Your task to perform on an android device: move an email to a new category in the gmail app Image 0: 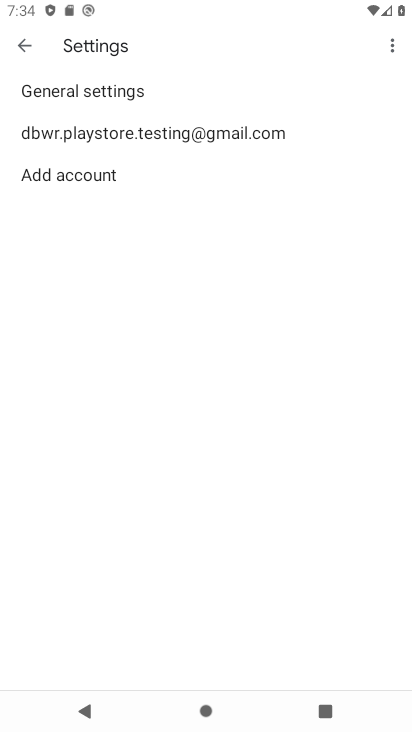
Step 0: press home button
Your task to perform on an android device: move an email to a new category in the gmail app Image 1: 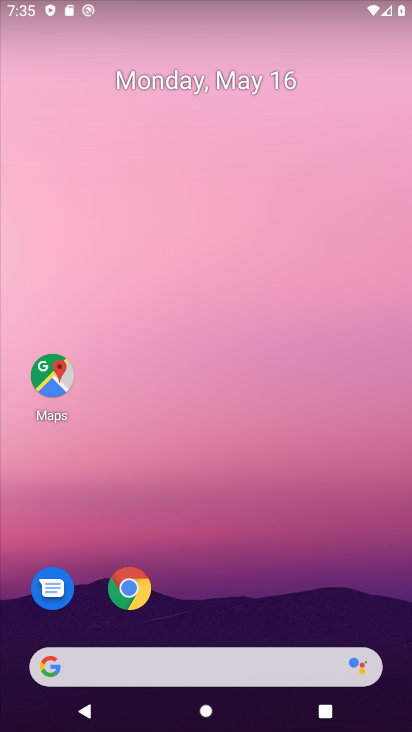
Step 1: drag from (336, 586) to (363, 155)
Your task to perform on an android device: move an email to a new category in the gmail app Image 2: 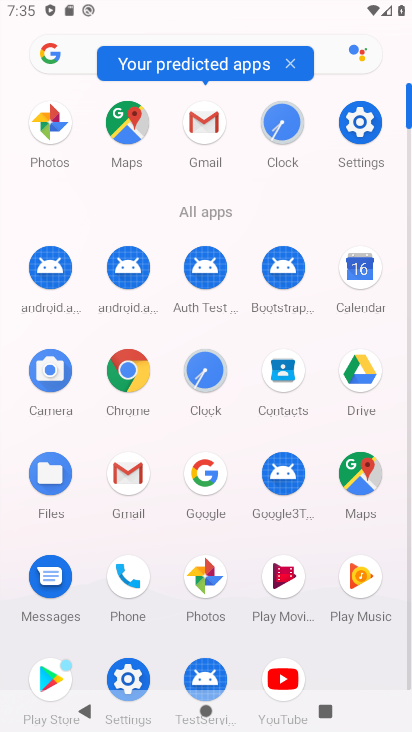
Step 2: click (131, 483)
Your task to perform on an android device: move an email to a new category in the gmail app Image 3: 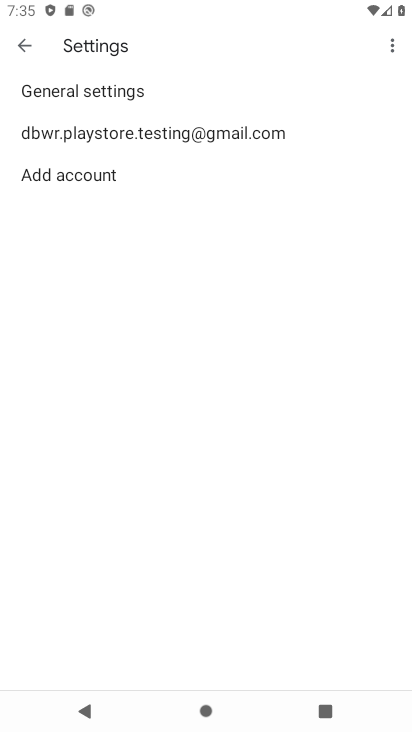
Step 3: click (27, 44)
Your task to perform on an android device: move an email to a new category in the gmail app Image 4: 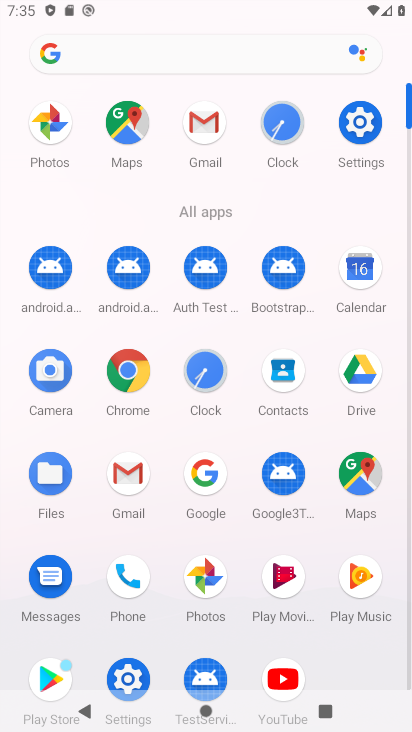
Step 4: click (137, 479)
Your task to perform on an android device: move an email to a new category in the gmail app Image 5: 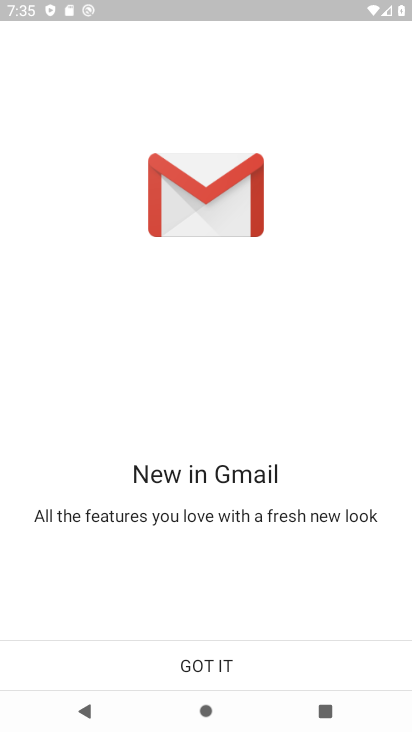
Step 5: click (228, 668)
Your task to perform on an android device: move an email to a new category in the gmail app Image 6: 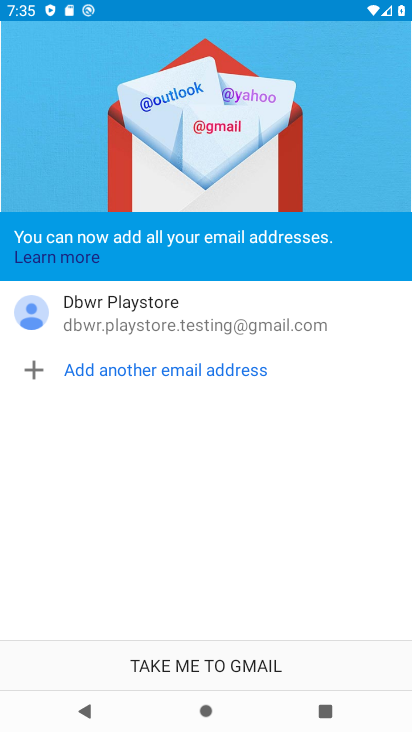
Step 6: click (228, 668)
Your task to perform on an android device: move an email to a new category in the gmail app Image 7: 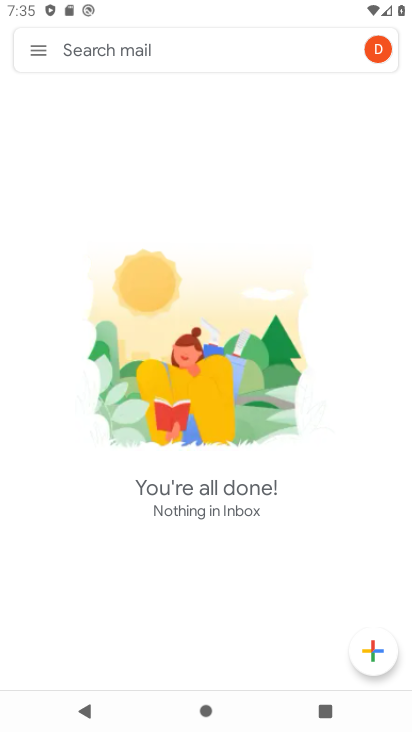
Step 7: click (32, 38)
Your task to perform on an android device: move an email to a new category in the gmail app Image 8: 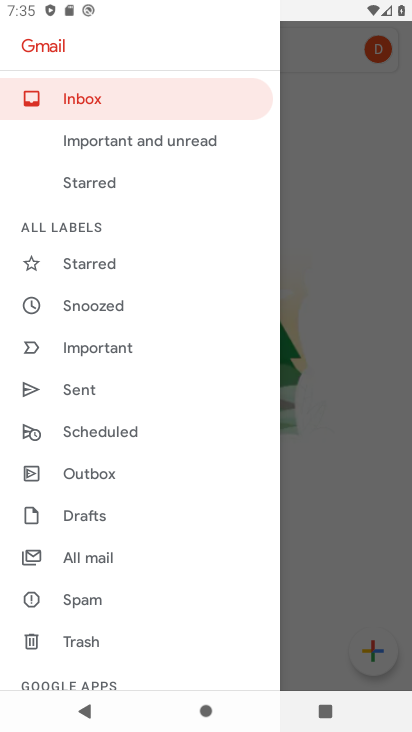
Step 8: drag from (184, 599) to (186, 380)
Your task to perform on an android device: move an email to a new category in the gmail app Image 9: 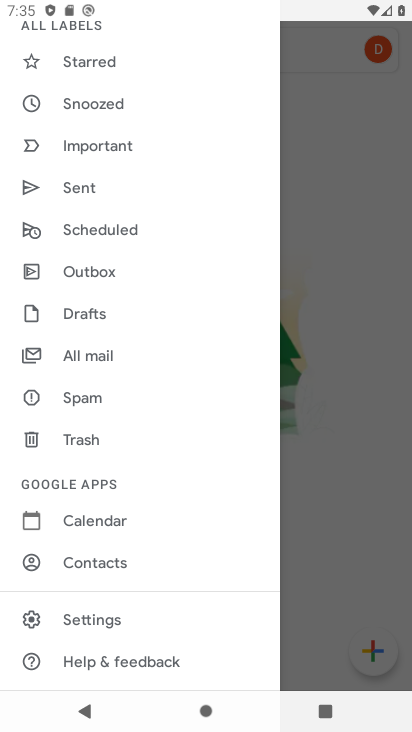
Step 9: drag from (208, 586) to (227, 377)
Your task to perform on an android device: move an email to a new category in the gmail app Image 10: 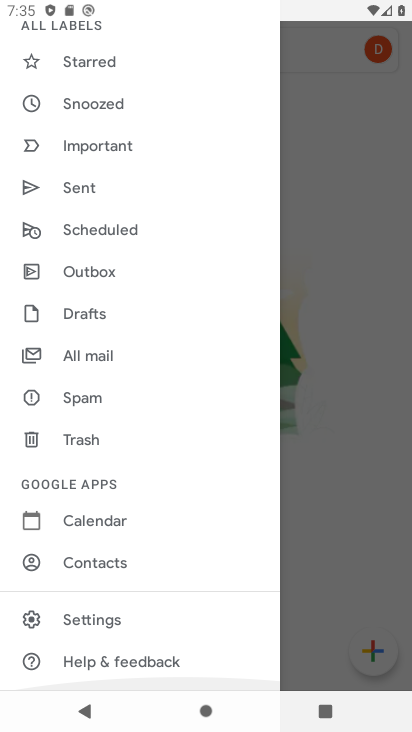
Step 10: drag from (226, 238) to (222, 402)
Your task to perform on an android device: move an email to a new category in the gmail app Image 11: 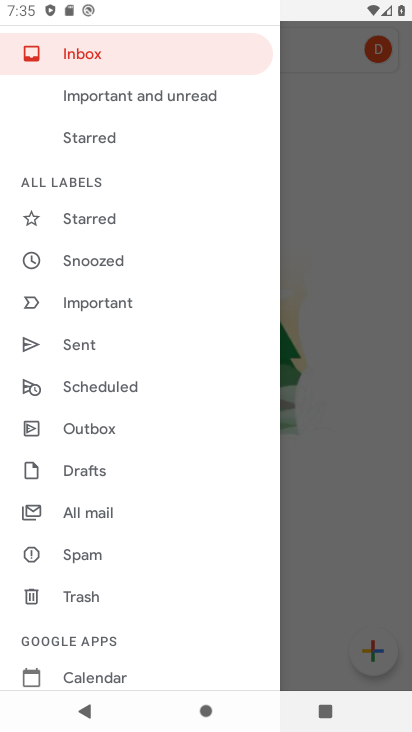
Step 11: drag from (226, 229) to (228, 403)
Your task to perform on an android device: move an email to a new category in the gmail app Image 12: 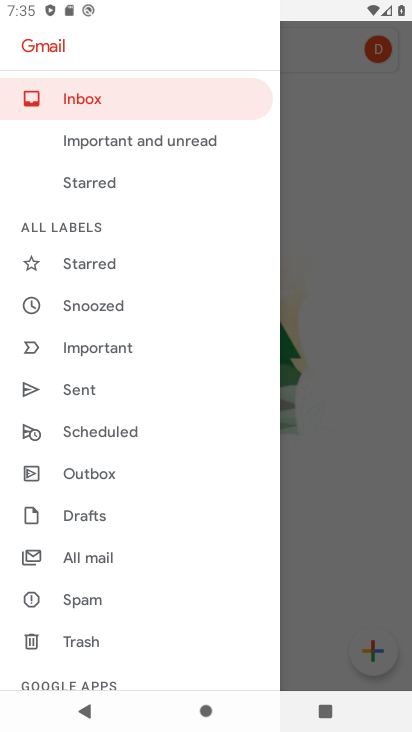
Step 12: click (108, 100)
Your task to perform on an android device: move an email to a new category in the gmail app Image 13: 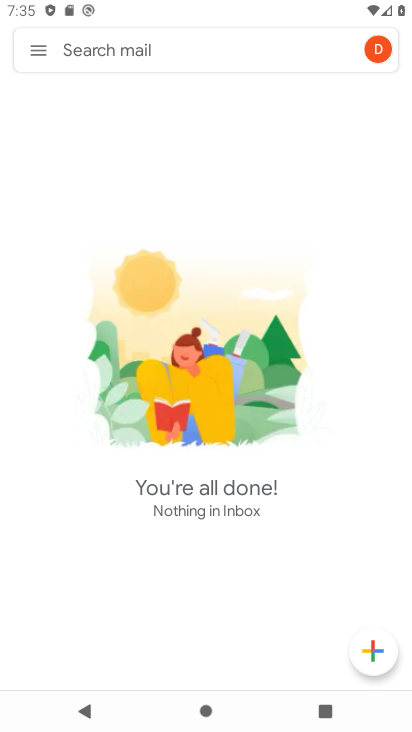
Step 13: task complete